Your task to perform on an android device: Go to Android settings Image 0: 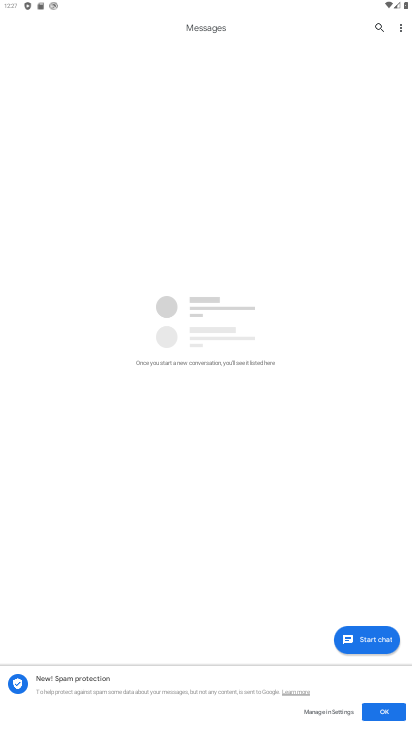
Step 0: drag from (200, 681) to (217, 220)
Your task to perform on an android device: Go to Android settings Image 1: 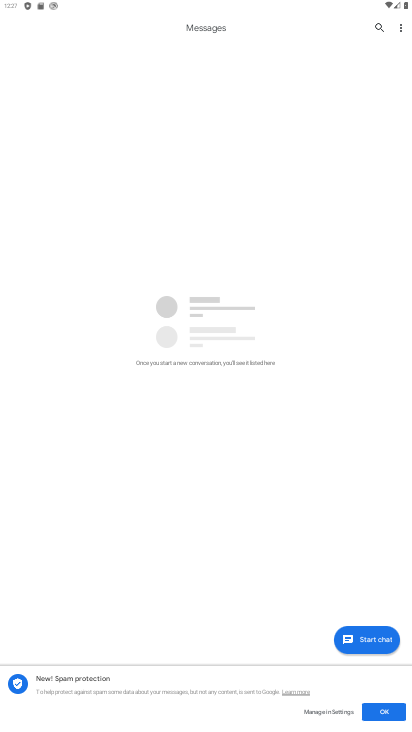
Step 1: press home button
Your task to perform on an android device: Go to Android settings Image 2: 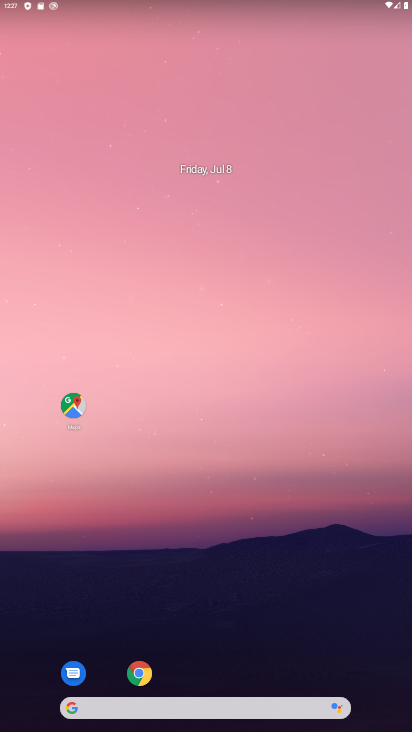
Step 2: drag from (214, 678) to (213, 73)
Your task to perform on an android device: Go to Android settings Image 3: 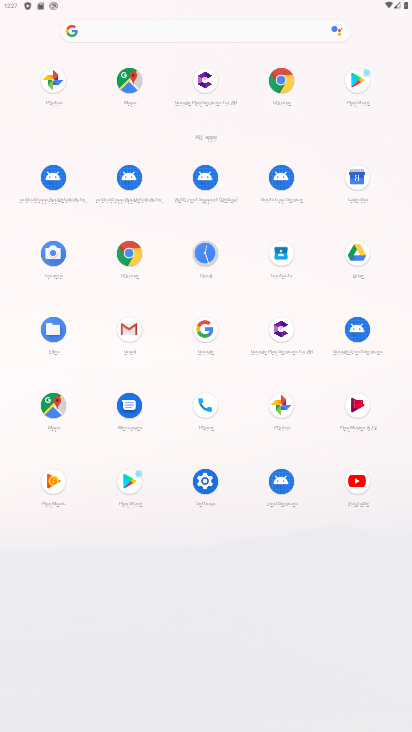
Step 3: click (204, 476)
Your task to perform on an android device: Go to Android settings Image 4: 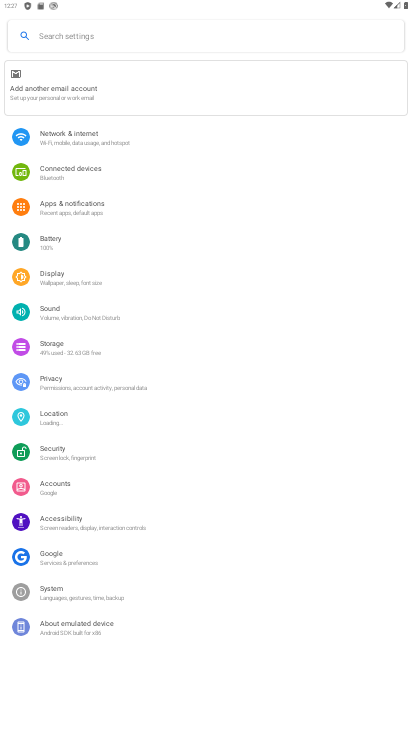
Step 4: click (68, 628)
Your task to perform on an android device: Go to Android settings Image 5: 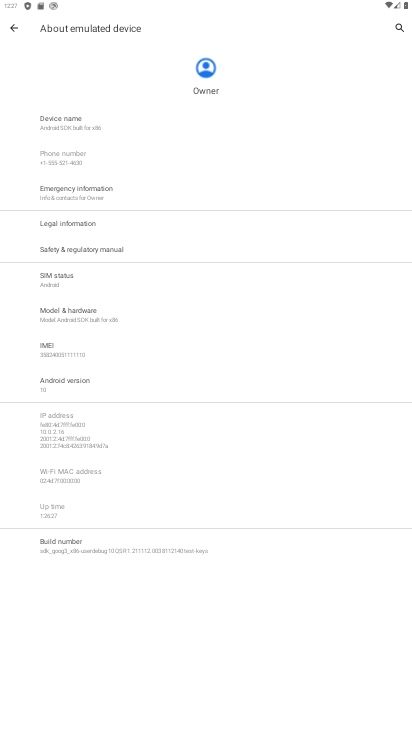
Step 5: click (76, 380)
Your task to perform on an android device: Go to Android settings Image 6: 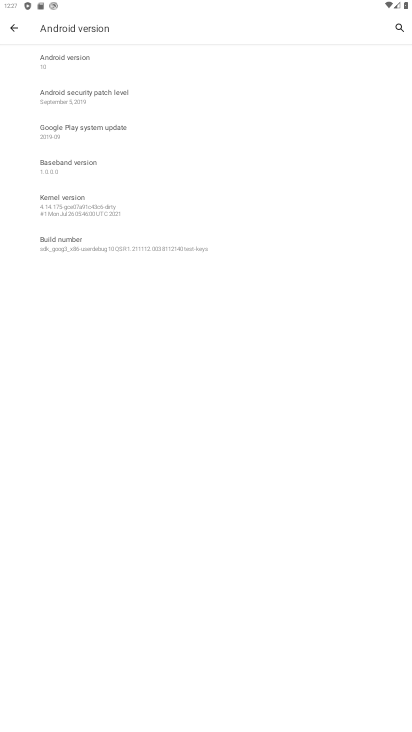
Step 6: task complete